Your task to perform on an android device: What's on my calendar tomorrow? Image 0: 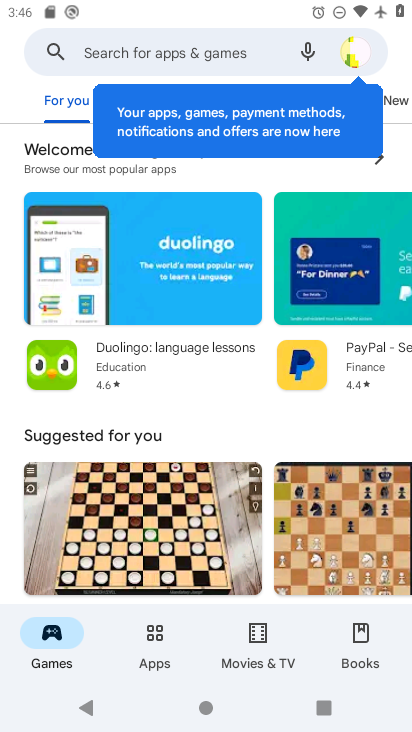
Step 0: press home button
Your task to perform on an android device: What's on my calendar tomorrow? Image 1: 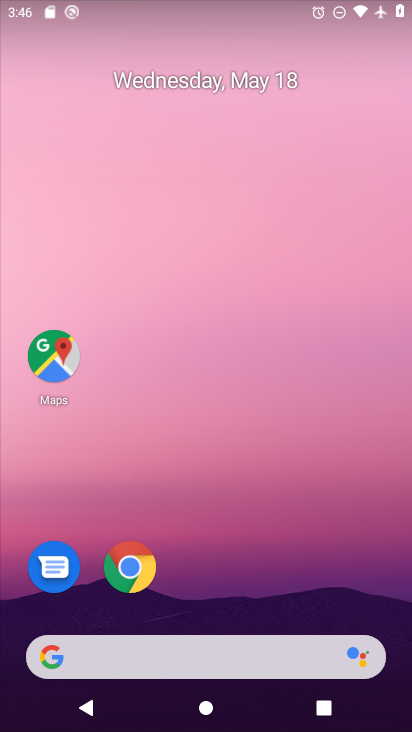
Step 1: drag from (266, 519) to (302, 118)
Your task to perform on an android device: What's on my calendar tomorrow? Image 2: 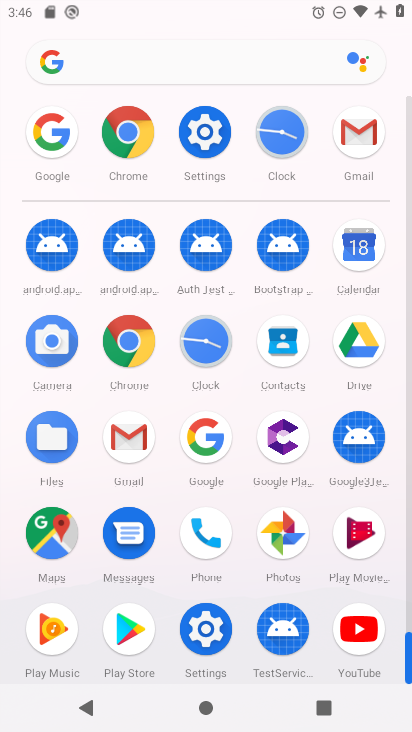
Step 2: click (361, 244)
Your task to perform on an android device: What's on my calendar tomorrow? Image 3: 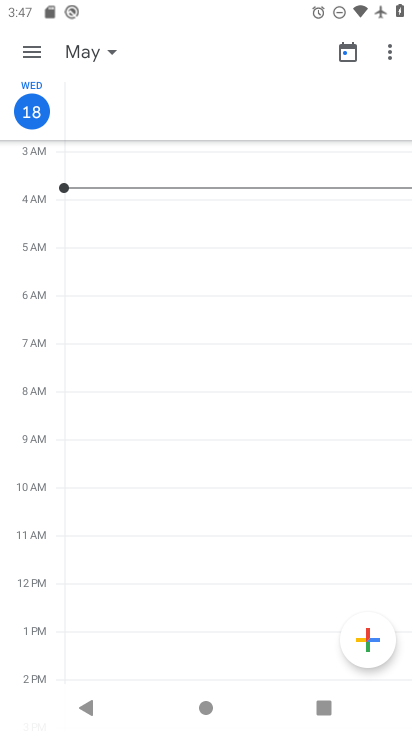
Step 3: click (31, 43)
Your task to perform on an android device: What's on my calendar tomorrow? Image 4: 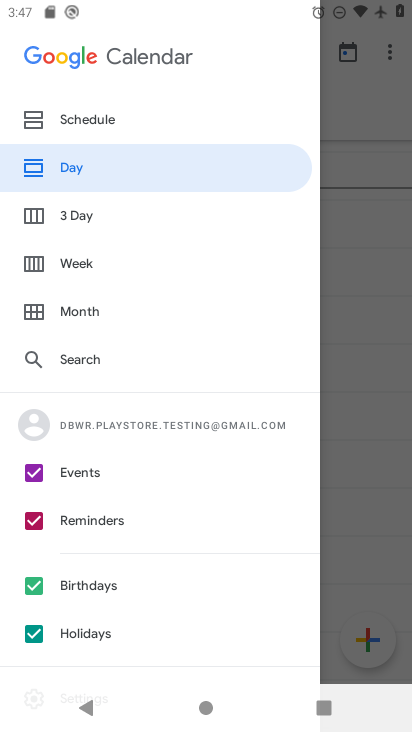
Step 4: click (108, 307)
Your task to perform on an android device: What's on my calendar tomorrow? Image 5: 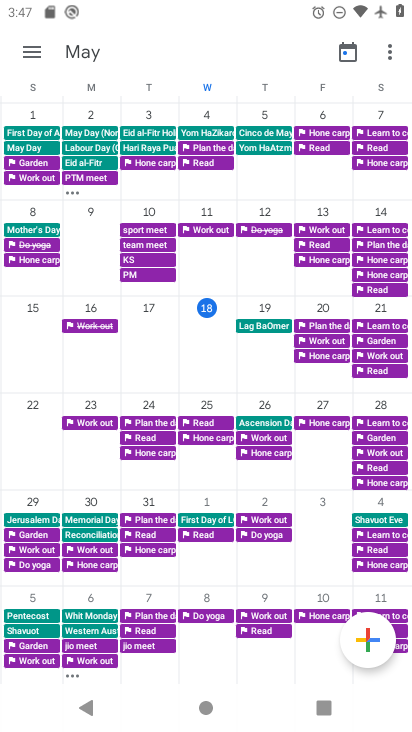
Step 5: click (259, 314)
Your task to perform on an android device: What's on my calendar tomorrow? Image 6: 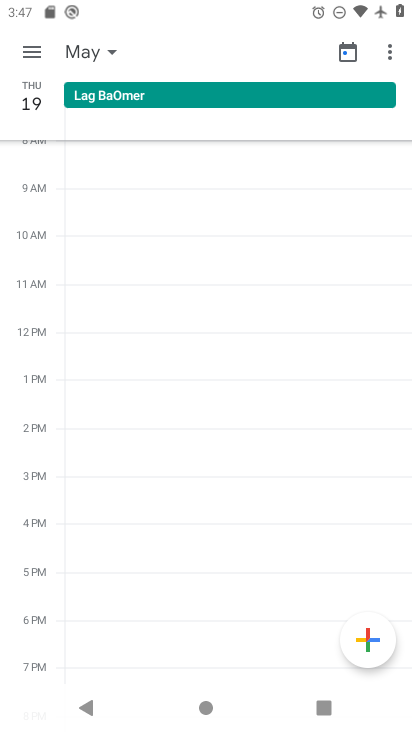
Step 6: task complete